Your task to perform on an android device: check battery use Image 0: 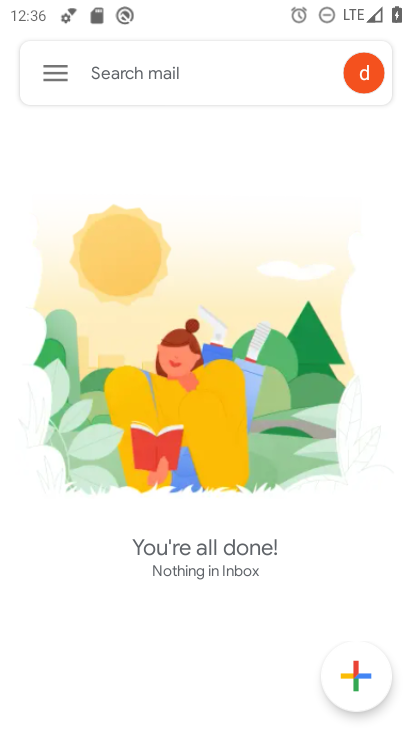
Step 0: press home button
Your task to perform on an android device: check battery use Image 1: 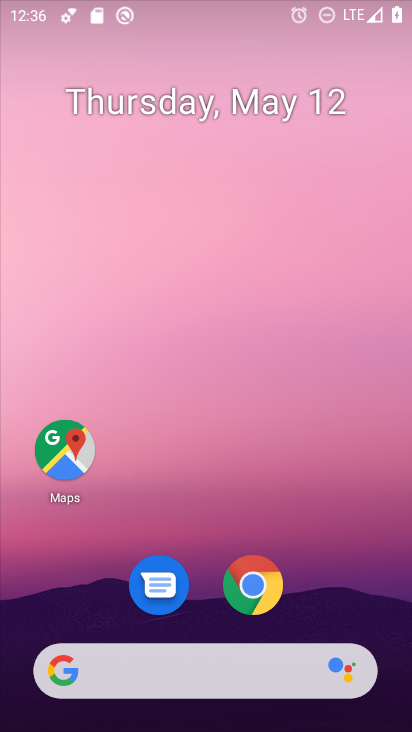
Step 1: drag from (281, 491) to (271, 10)
Your task to perform on an android device: check battery use Image 2: 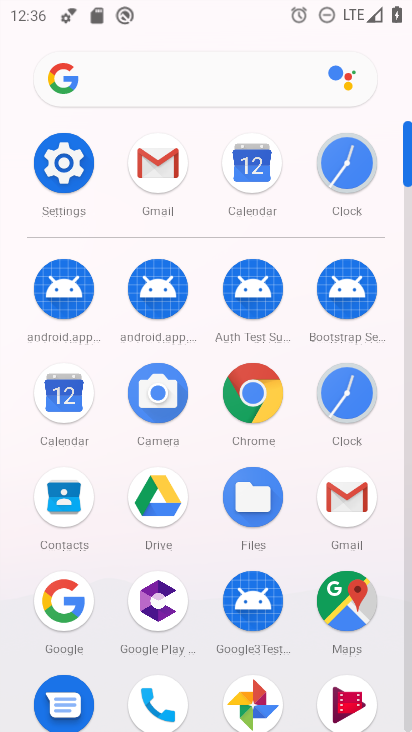
Step 2: click (69, 162)
Your task to perform on an android device: check battery use Image 3: 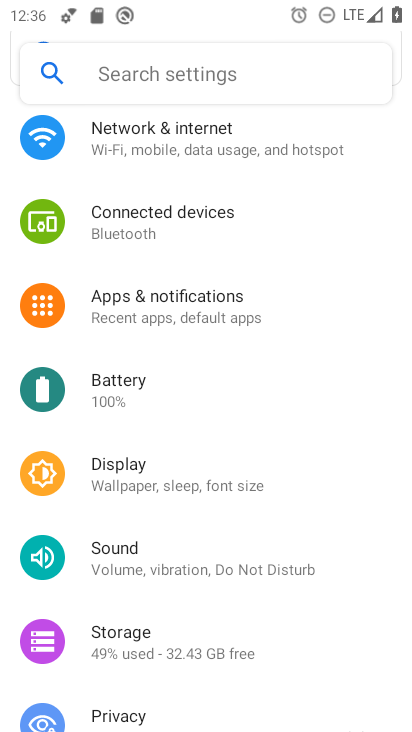
Step 3: click (206, 388)
Your task to perform on an android device: check battery use Image 4: 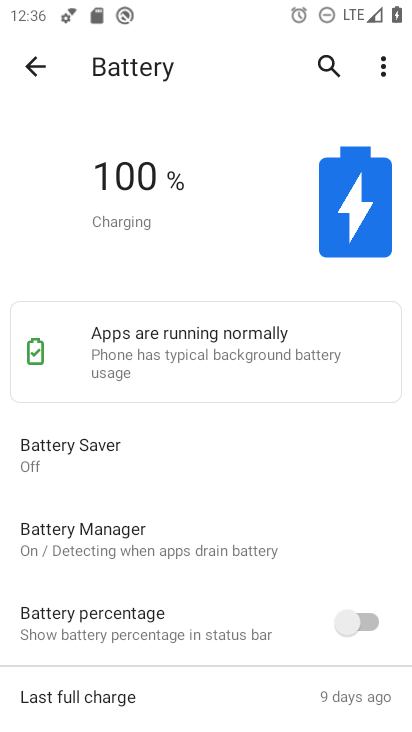
Step 4: task complete